Your task to perform on an android device: Search for the most popular books on Goodreads Image 0: 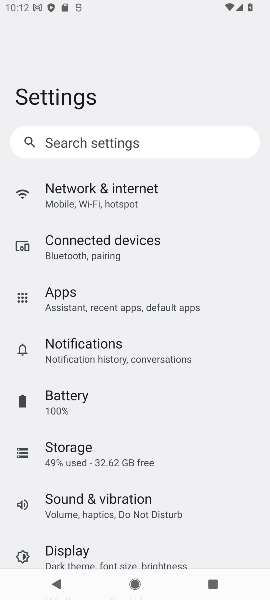
Step 0: press home button
Your task to perform on an android device: Search for the most popular books on Goodreads Image 1: 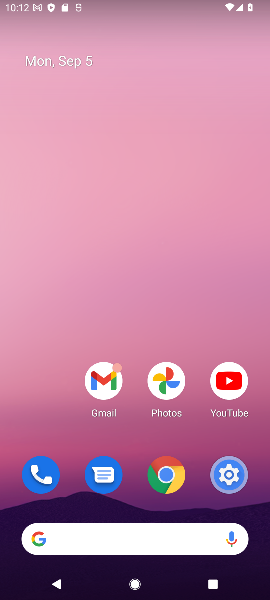
Step 1: click (129, 539)
Your task to perform on an android device: Search for the most popular books on Goodreads Image 2: 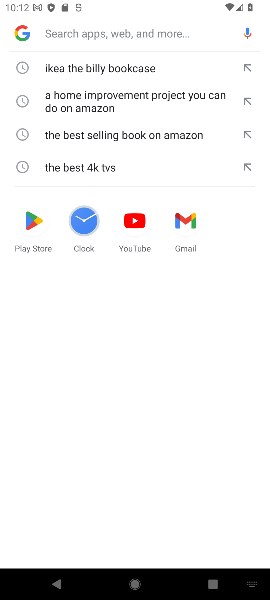
Step 2: type "the most popular books on Goodreads"
Your task to perform on an android device: Search for the most popular books on Goodreads Image 3: 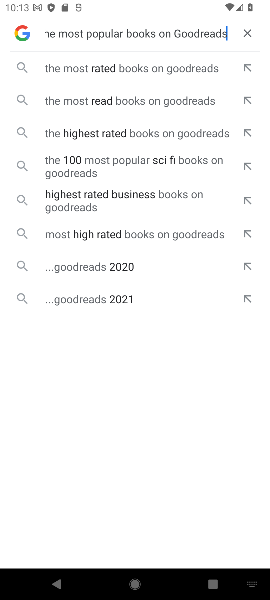
Step 3: click (151, 64)
Your task to perform on an android device: Search for the most popular books on Goodreads Image 4: 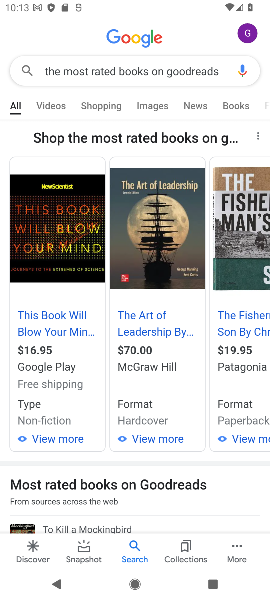
Step 4: task complete